Your task to perform on an android device: Go to CNN.com Image 0: 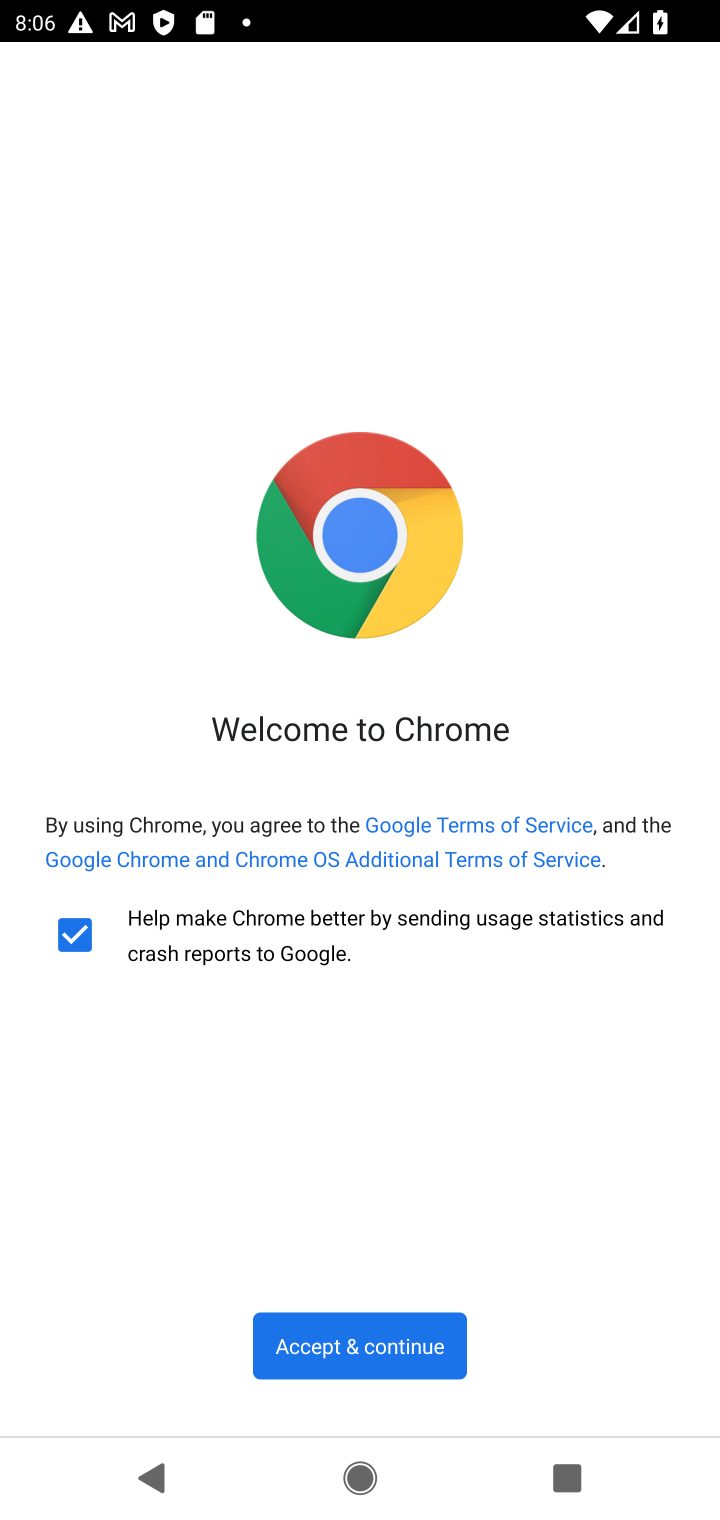
Step 0: click (365, 1347)
Your task to perform on an android device: Go to CNN.com Image 1: 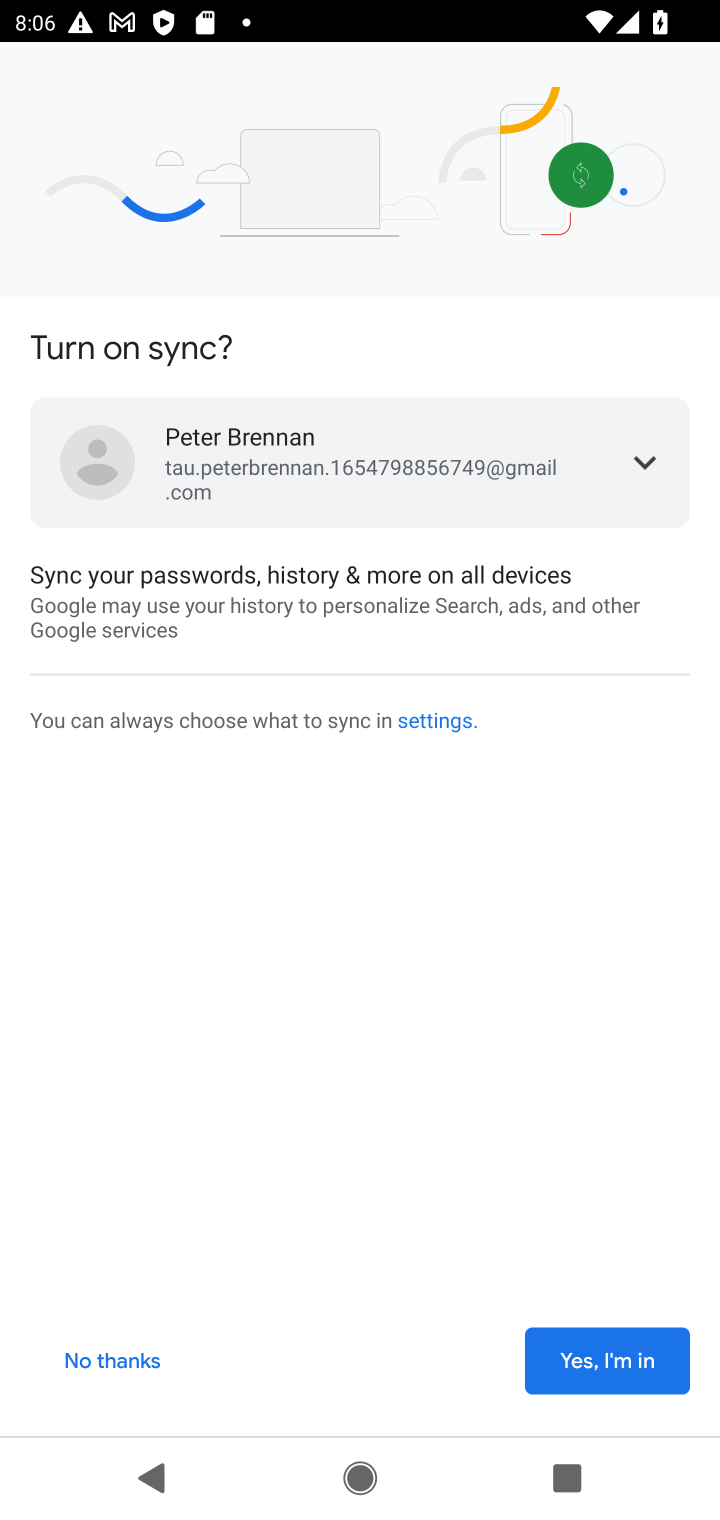
Step 1: click (618, 1353)
Your task to perform on an android device: Go to CNN.com Image 2: 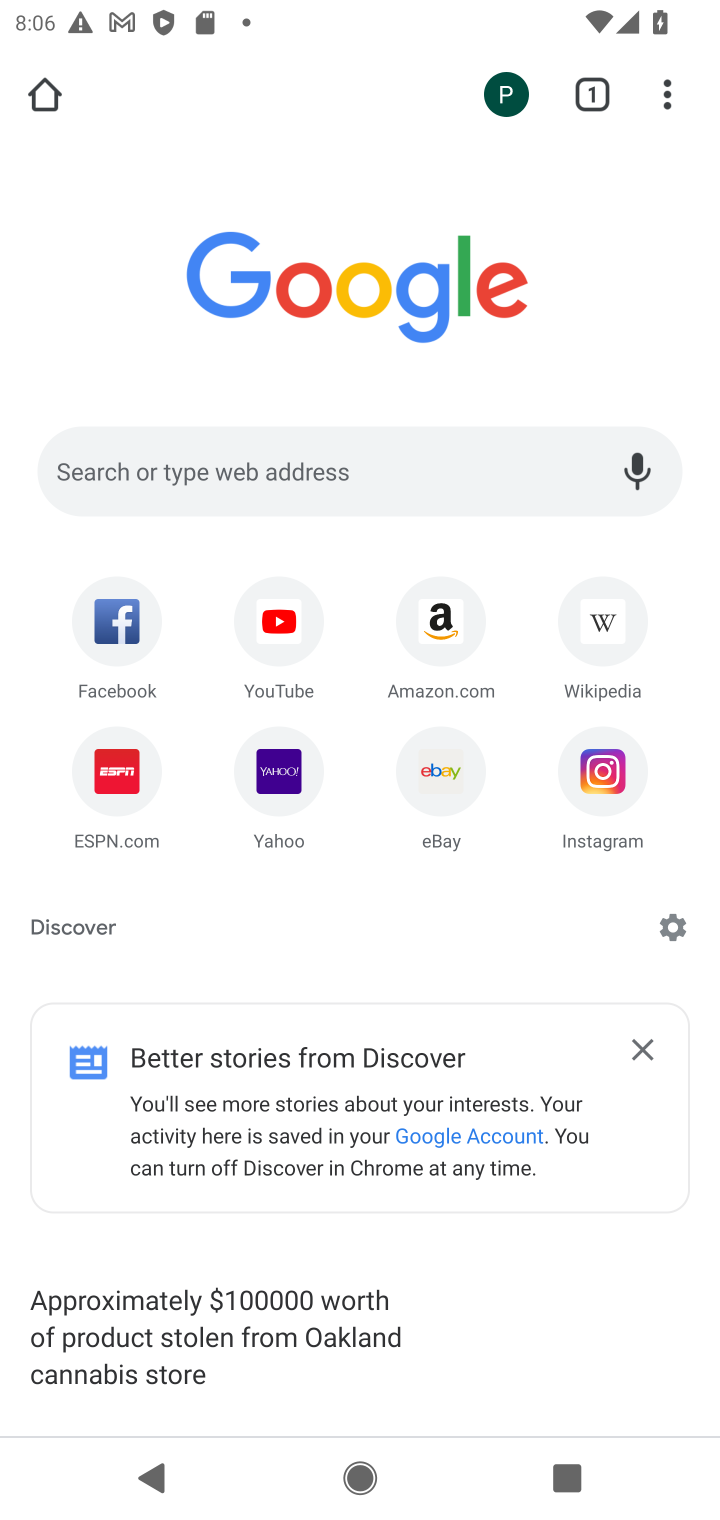
Step 2: click (275, 461)
Your task to perform on an android device: Go to CNN.com Image 3: 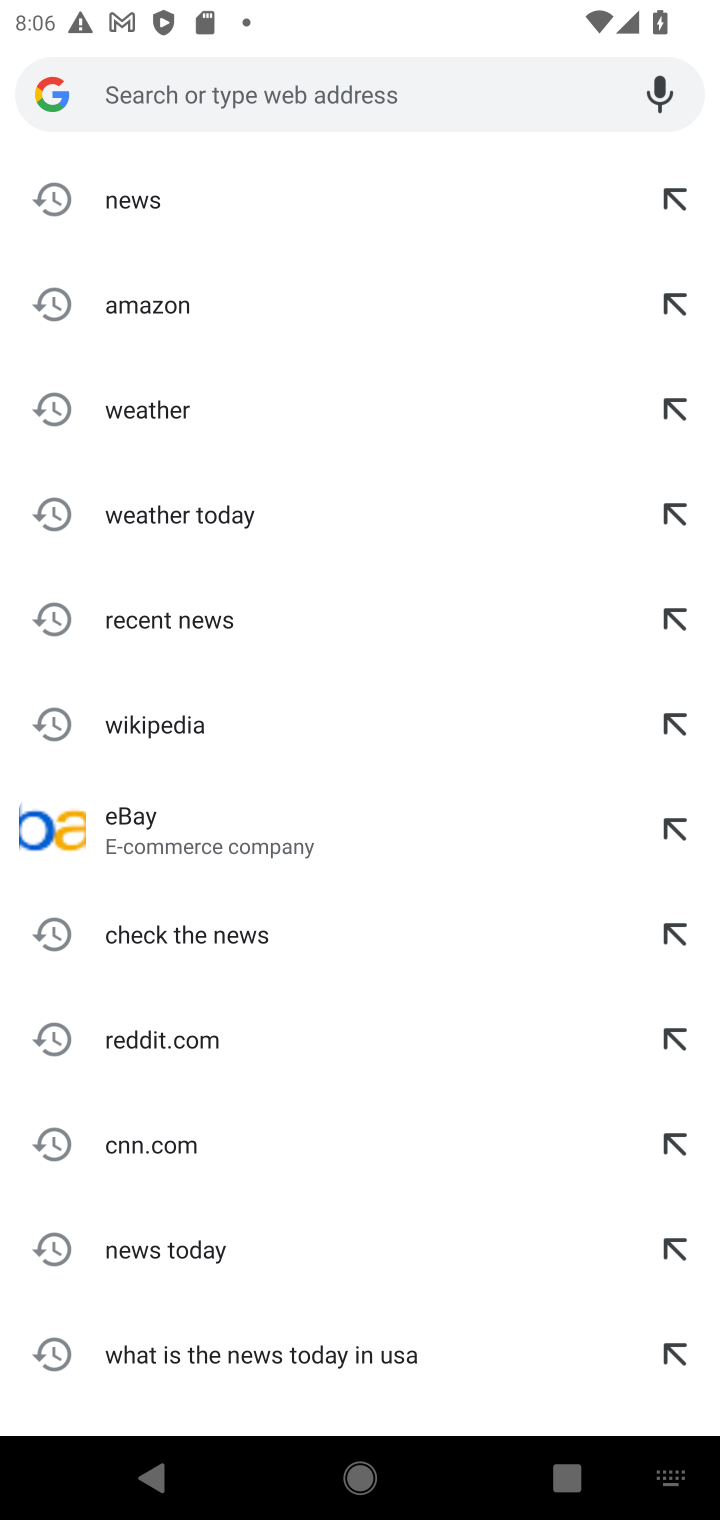
Step 3: click (163, 1148)
Your task to perform on an android device: Go to CNN.com Image 4: 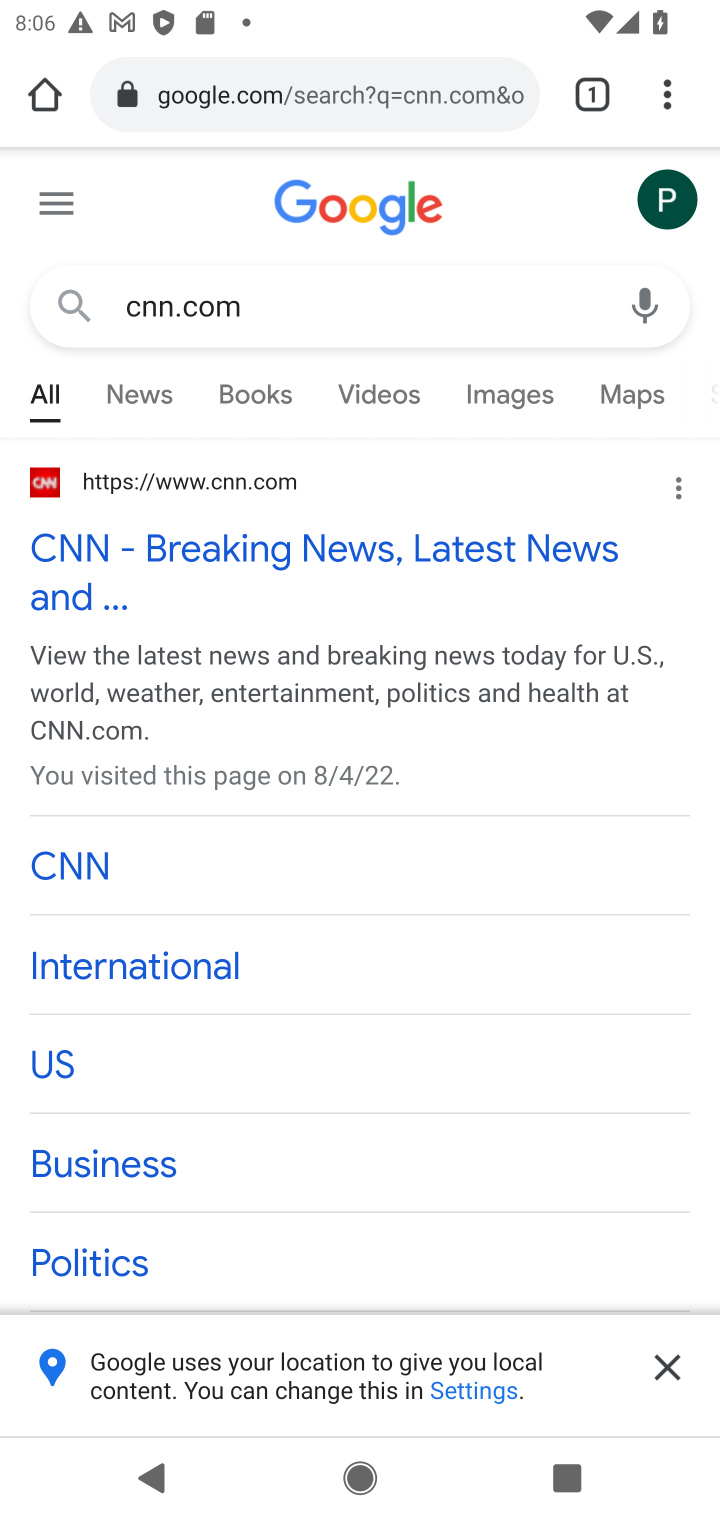
Step 4: click (663, 1372)
Your task to perform on an android device: Go to CNN.com Image 5: 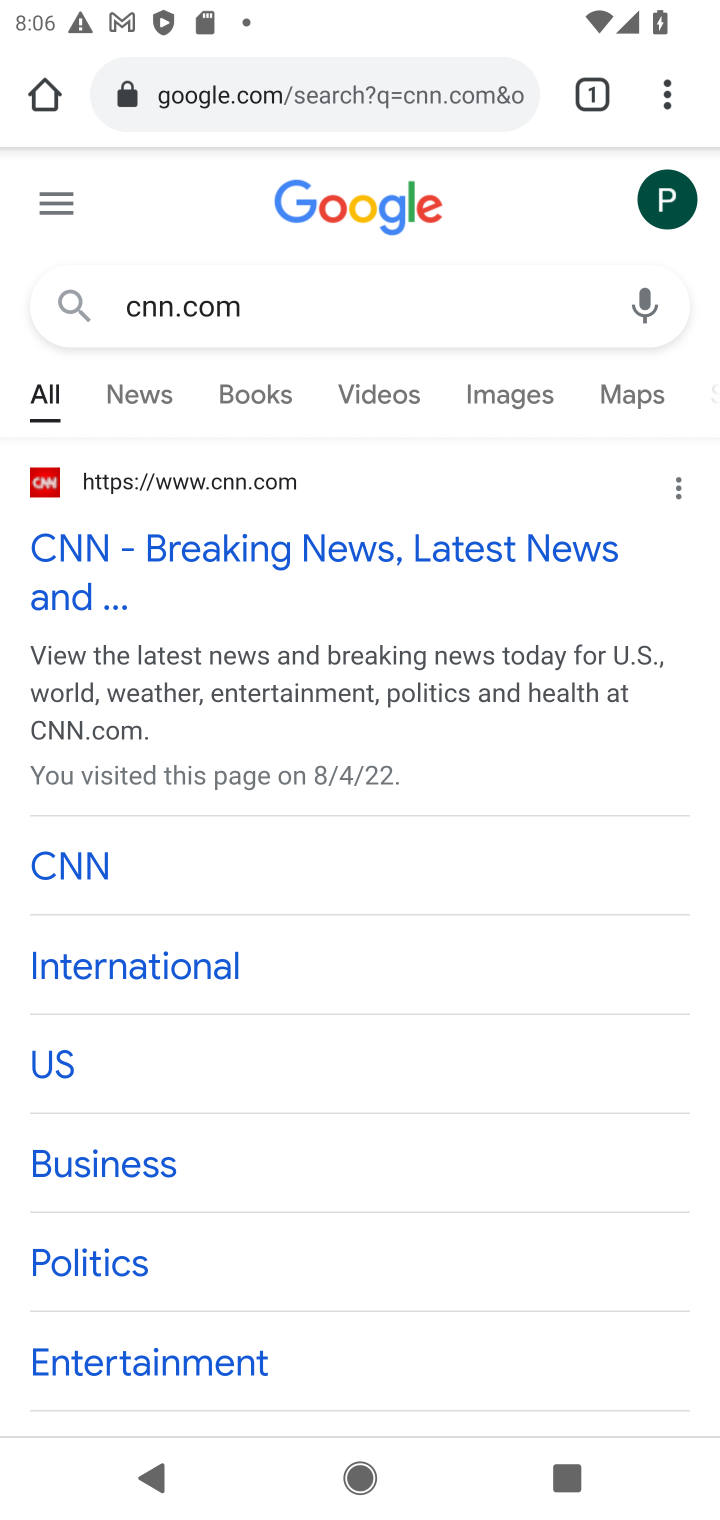
Step 5: click (165, 555)
Your task to perform on an android device: Go to CNN.com Image 6: 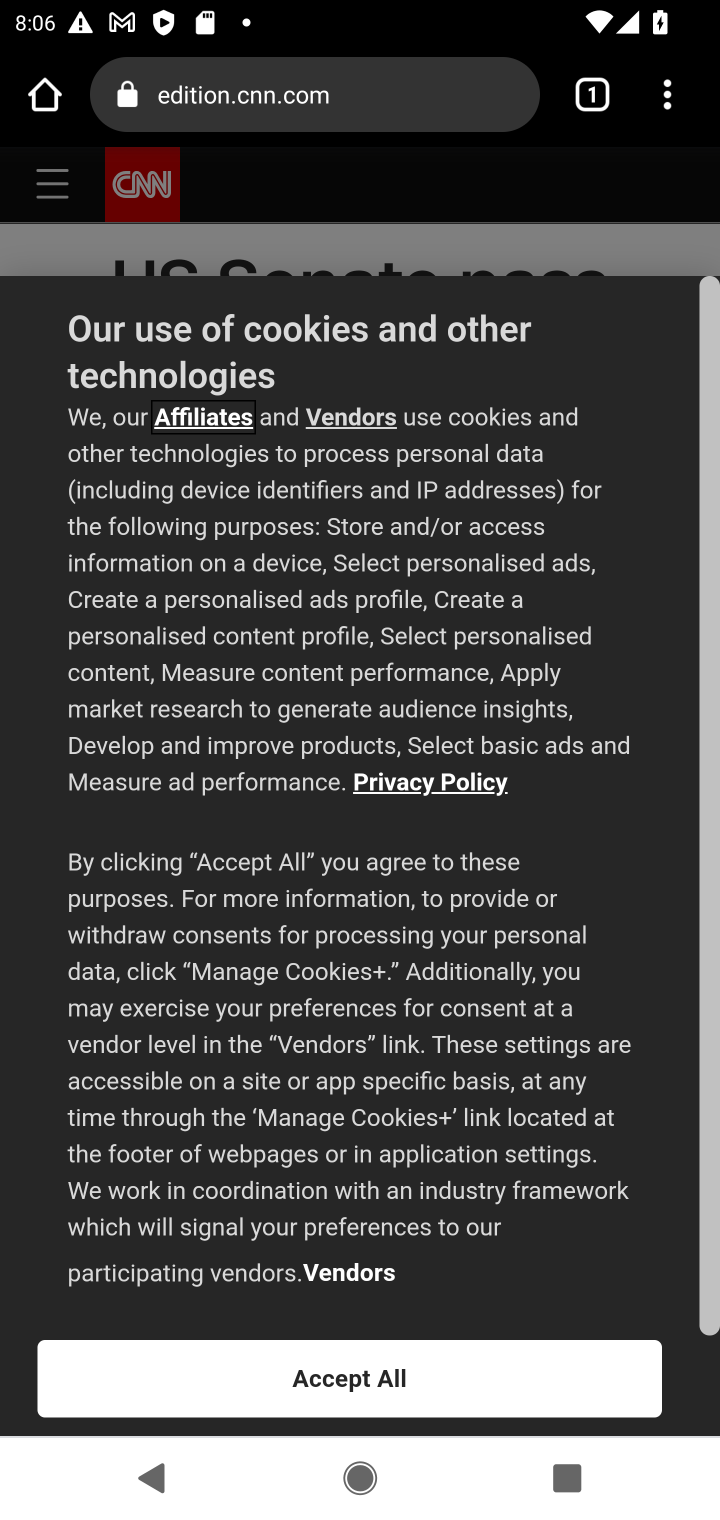
Step 6: click (405, 1383)
Your task to perform on an android device: Go to CNN.com Image 7: 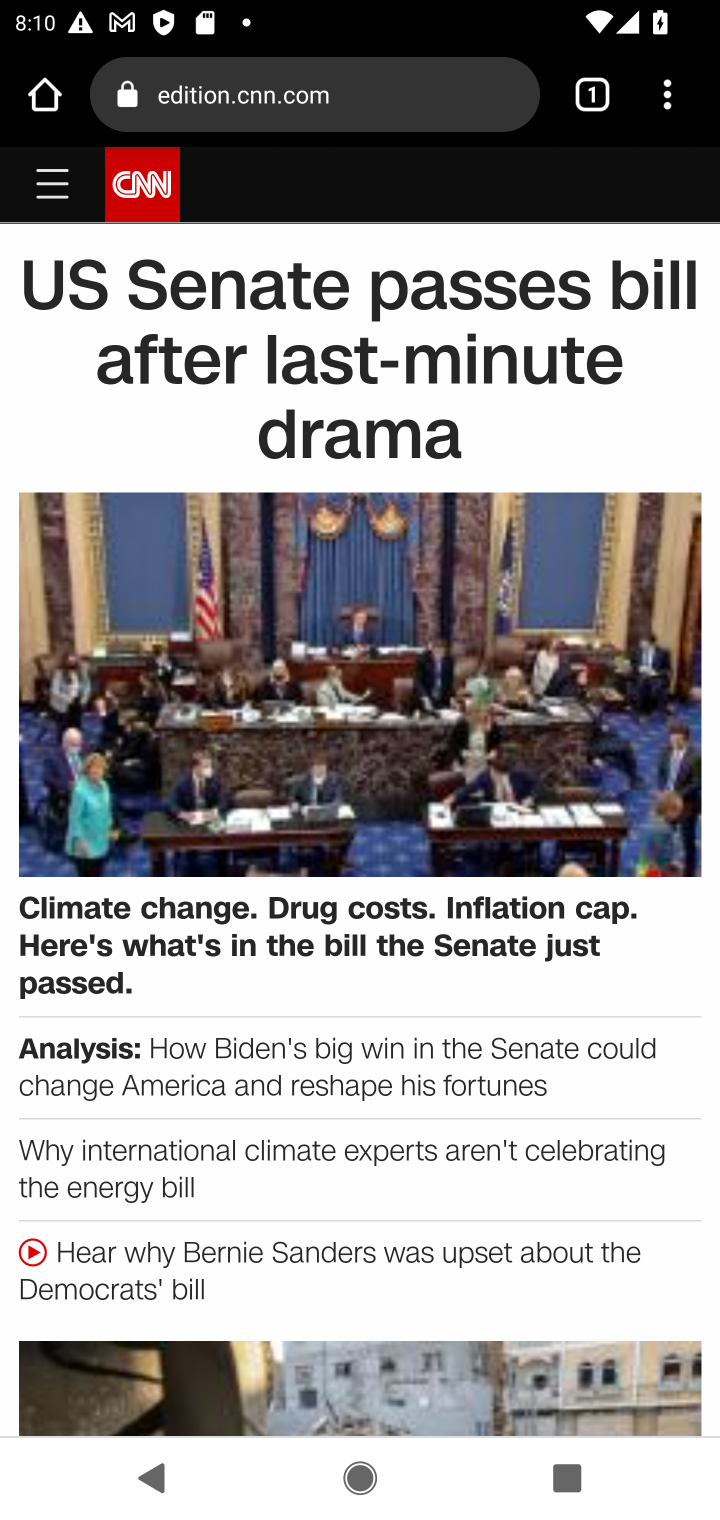
Step 7: task complete